Your task to perform on an android device: Go to wifi settings Image 0: 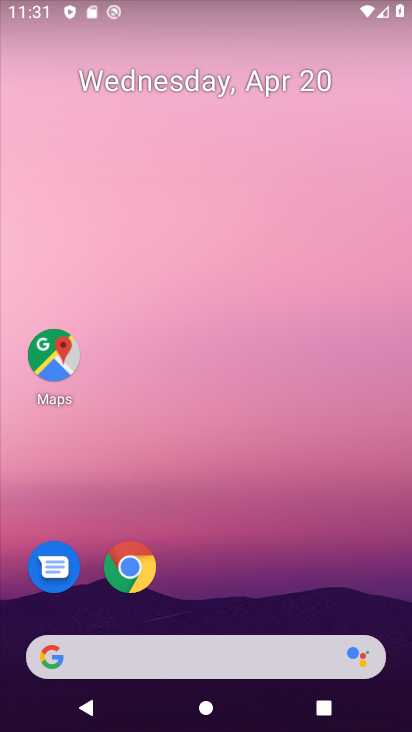
Step 0: drag from (223, 561) to (218, 290)
Your task to perform on an android device: Go to wifi settings Image 1: 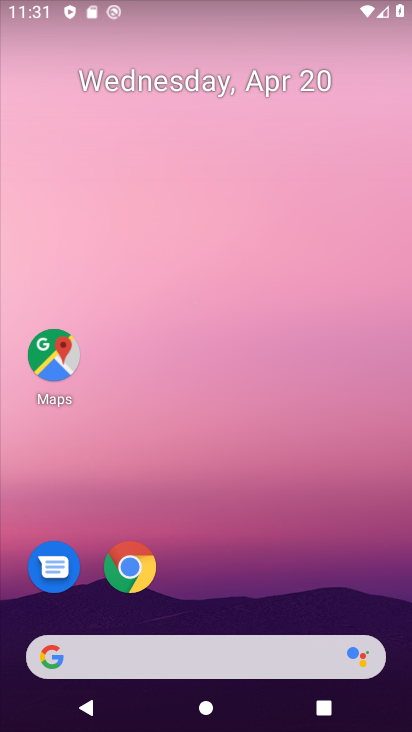
Step 1: drag from (184, 361) to (182, 149)
Your task to perform on an android device: Go to wifi settings Image 2: 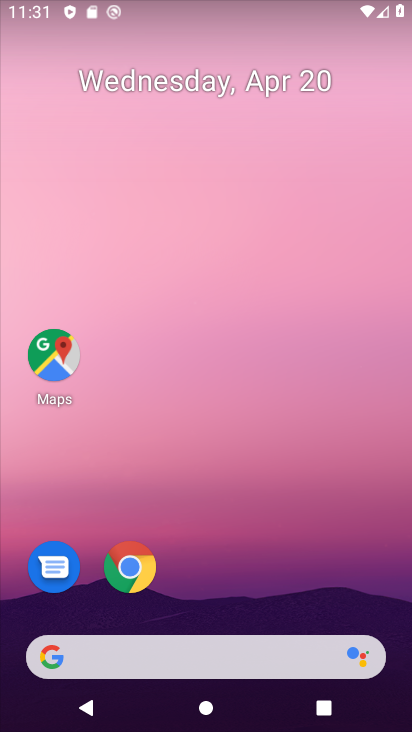
Step 2: drag from (195, 586) to (190, 215)
Your task to perform on an android device: Go to wifi settings Image 3: 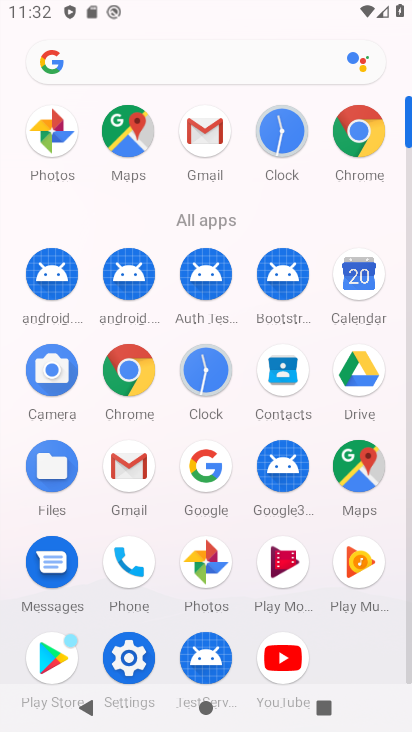
Step 3: click (131, 658)
Your task to perform on an android device: Go to wifi settings Image 4: 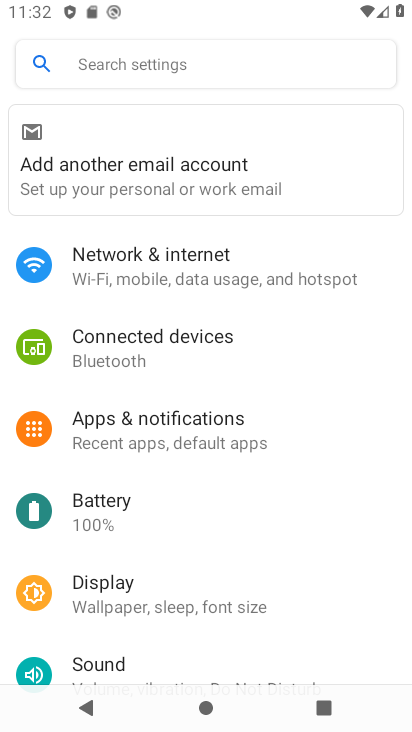
Step 4: click (160, 264)
Your task to perform on an android device: Go to wifi settings Image 5: 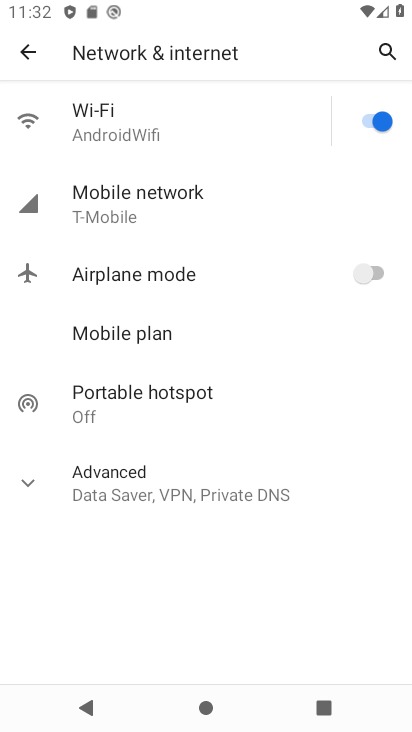
Step 5: click (112, 126)
Your task to perform on an android device: Go to wifi settings Image 6: 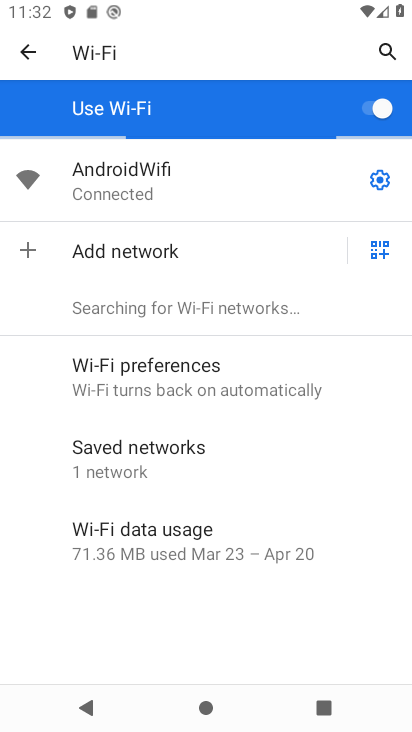
Step 6: click (375, 179)
Your task to perform on an android device: Go to wifi settings Image 7: 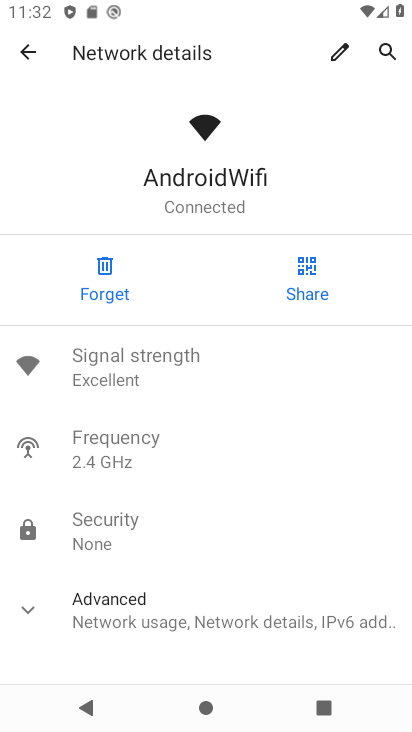
Step 7: click (31, 603)
Your task to perform on an android device: Go to wifi settings Image 8: 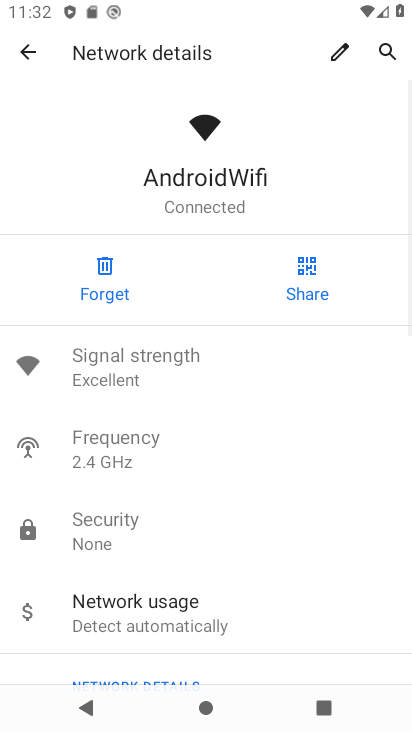
Step 8: task complete